Your task to perform on an android device: What is the recent news? Image 0: 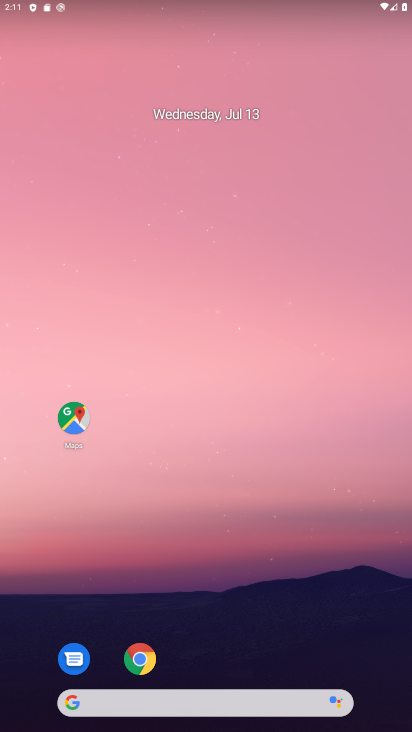
Step 0: click (206, 697)
Your task to perform on an android device: What is the recent news? Image 1: 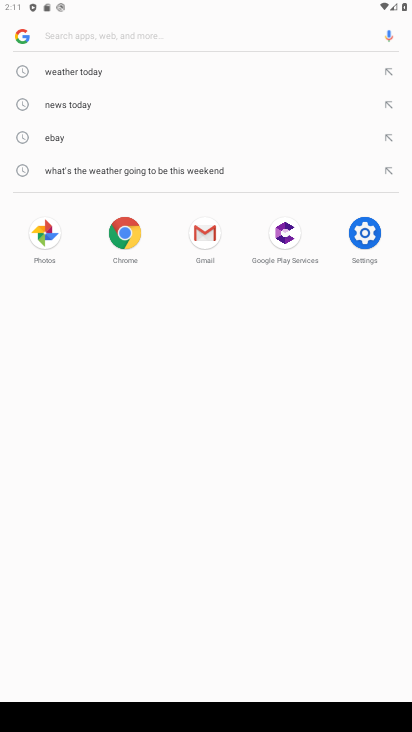
Step 1: type "what is the recent news?"
Your task to perform on an android device: What is the recent news? Image 2: 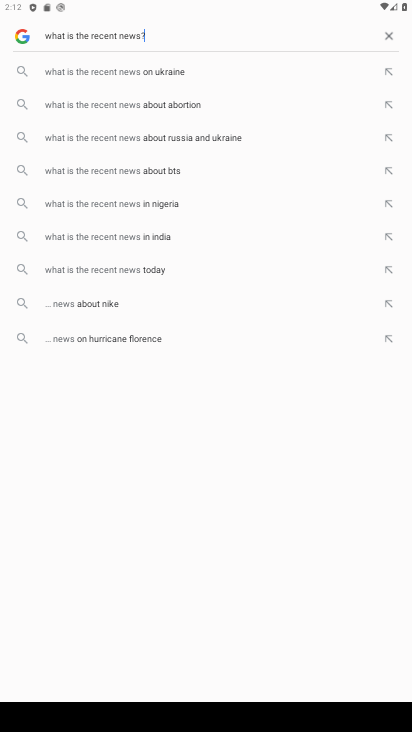
Step 2: click (161, 274)
Your task to perform on an android device: What is the recent news? Image 3: 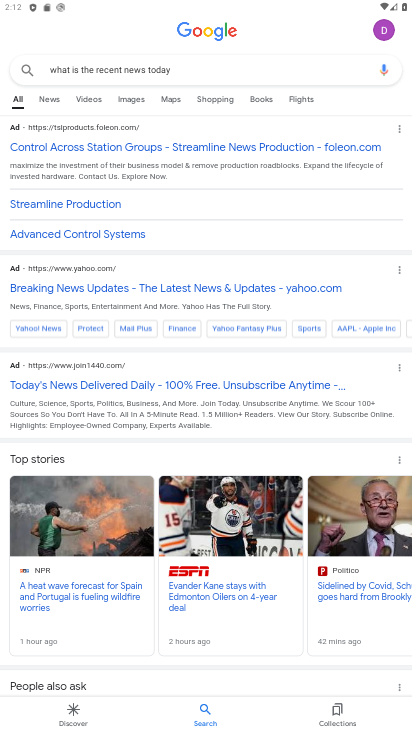
Step 3: click (55, 100)
Your task to perform on an android device: What is the recent news? Image 4: 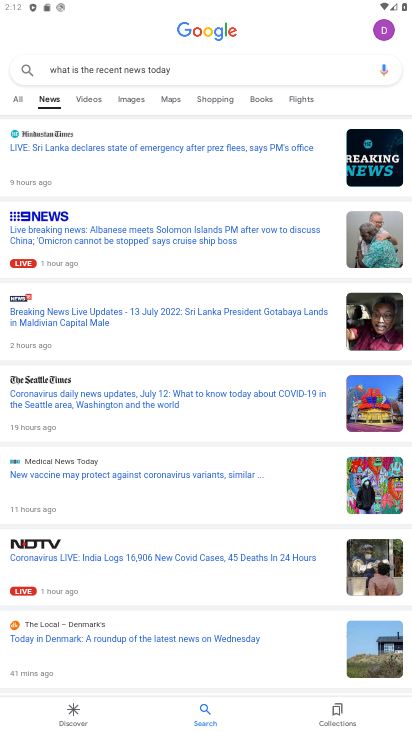
Step 4: task complete